Your task to perform on an android device: check the backup settings in the google photos Image 0: 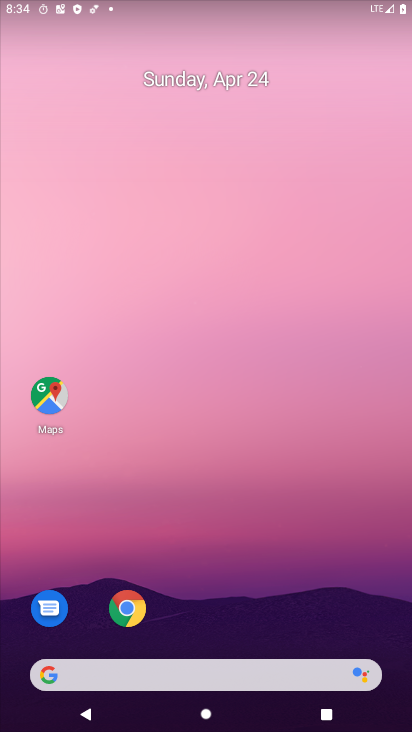
Step 0: drag from (310, 611) to (318, 71)
Your task to perform on an android device: check the backup settings in the google photos Image 1: 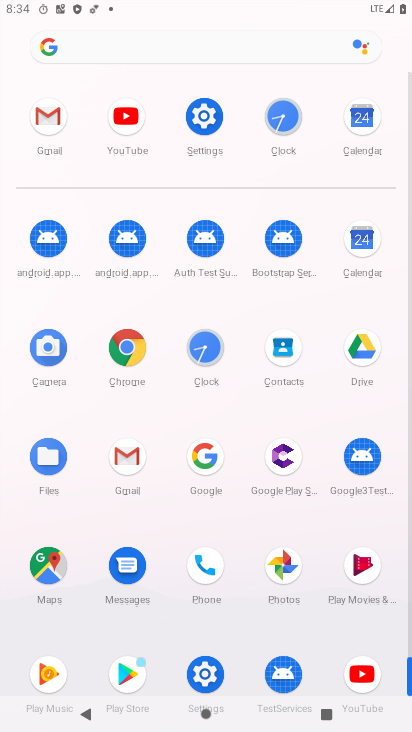
Step 1: click (281, 565)
Your task to perform on an android device: check the backup settings in the google photos Image 2: 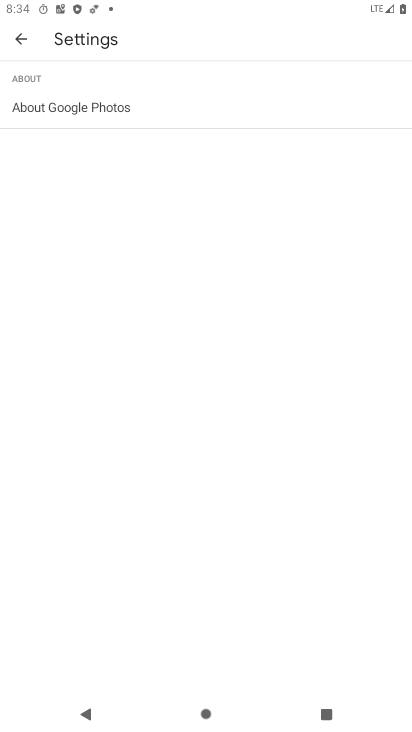
Step 2: click (21, 30)
Your task to perform on an android device: check the backup settings in the google photos Image 3: 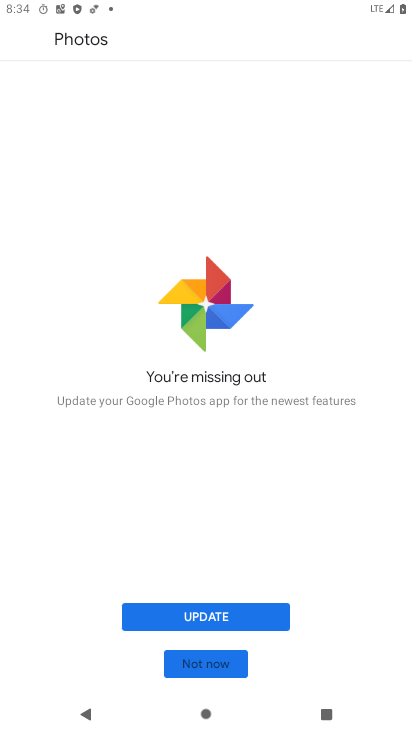
Step 3: click (211, 614)
Your task to perform on an android device: check the backup settings in the google photos Image 4: 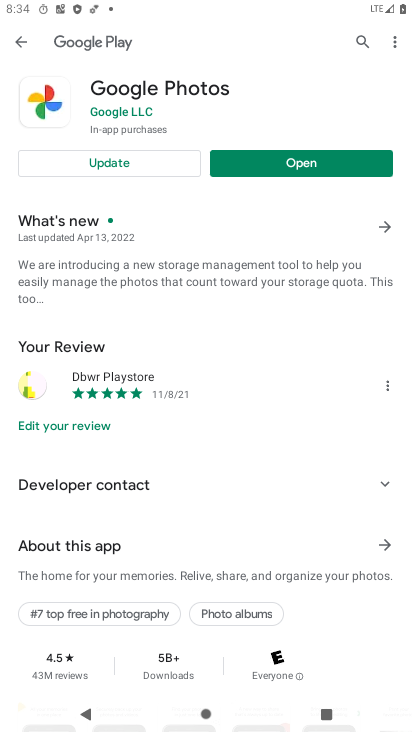
Step 4: click (305, 160)
Your task to perform on an android device: check the backup settings in the google photos Image 5: 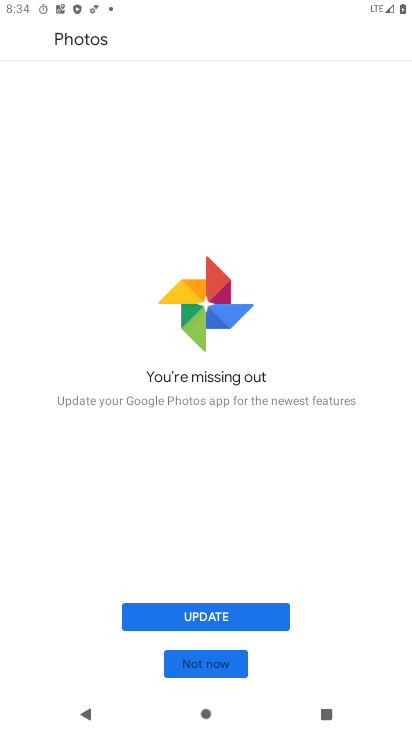
Step 5: click (224, 610)
Your task to perform on an android device: check the backup settings in the google photos Image 6: 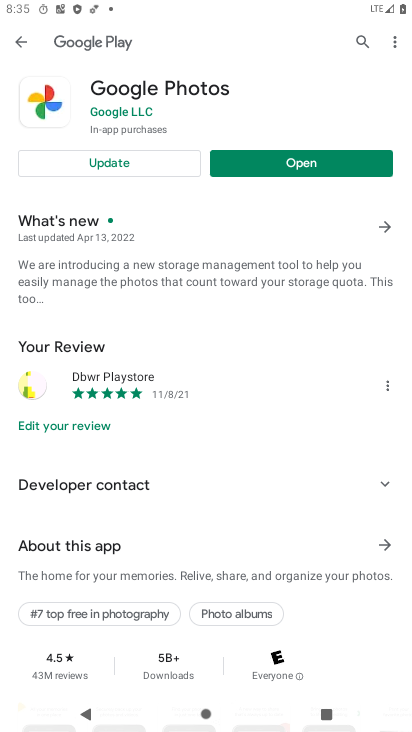
Step 6: click (186, 164)
Your task to perform on an android device: check the backup settings in the google photos Image 7: 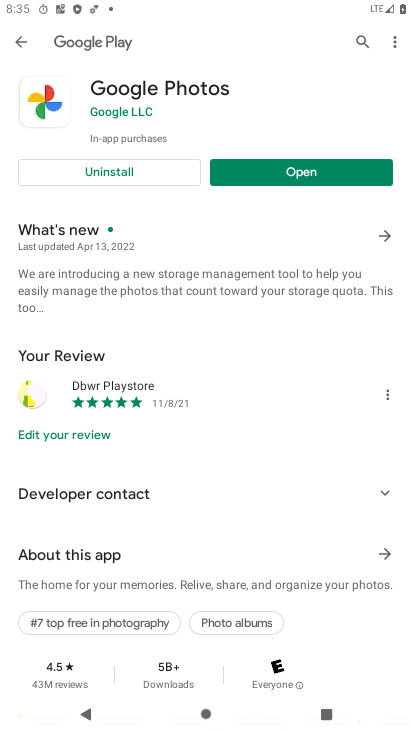
Step 7: click (252, 173)
Your task to perform on an android device: check the backup settings in the google photos Image 8: 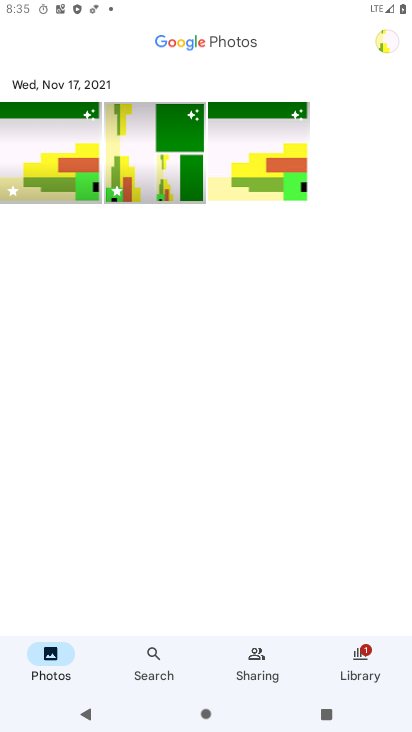
Step 8: click (389, 36)
Your task to perform on an android device: check the backup settings in the google photos Image 9: 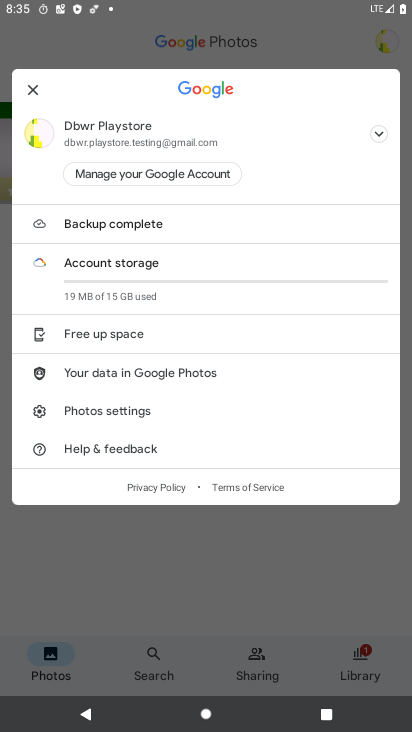
Step 9: click (177, 137)
Your task to perform on an android device: check the backup settings in the google photos Image 10: 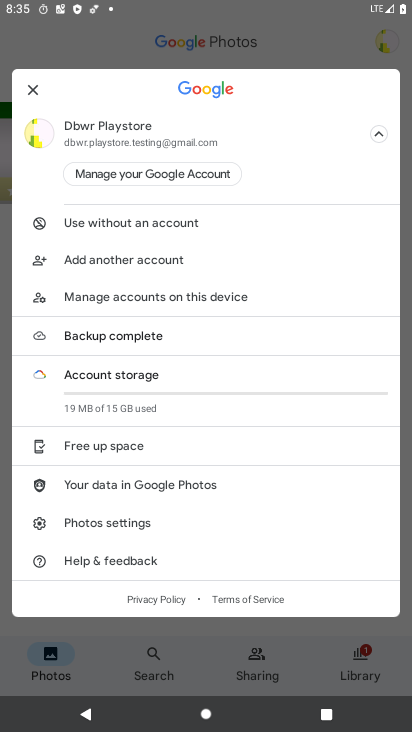
Step 10: click (143, 328)
Your task to perform on an android device: check the backup settings in the google photos Image 11: 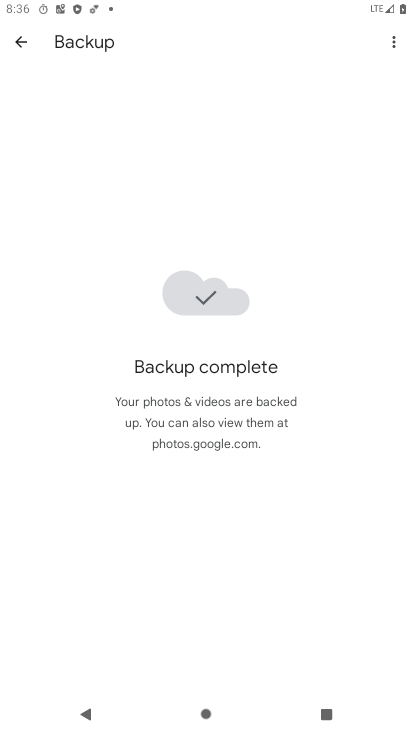
Step 11: click (391, 38)
Your task to perform on an android device: check the backup settings in the google photos Image 12: 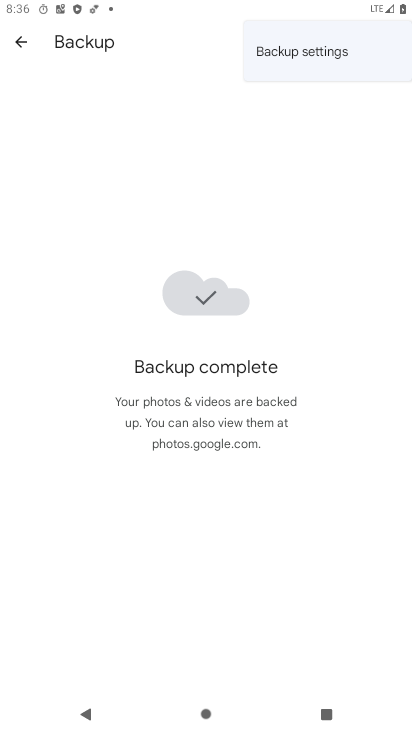
Step 12: click (344, 49)
Your task to perform on an android device: check the backup settings in the google photos Image 13: 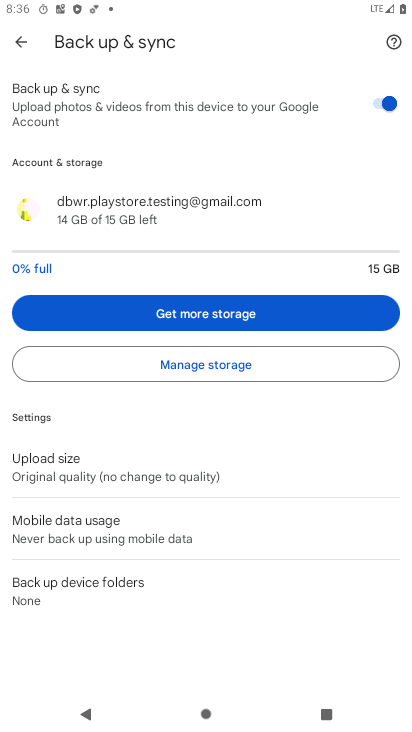
Step 13: task complete